Your task to perform on an android device: Search for "apple airpods pro" on costco.com, select the first entry, and add it to the cart. Image 0: 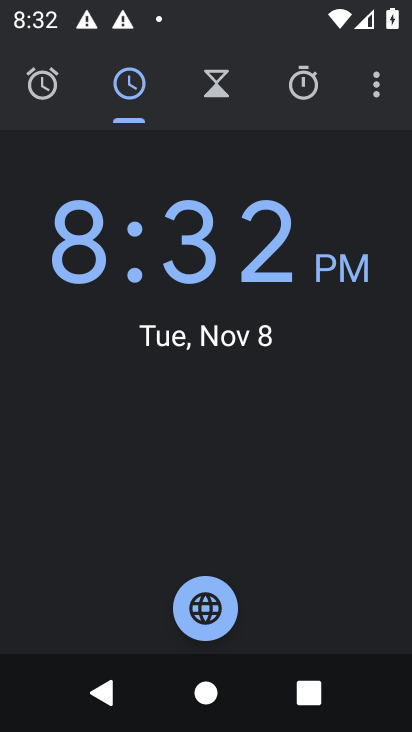
Step 0: press home button
Your task to perform on an android device: Search for "apple airpods pro" on costco.com, select the first entry, and add it to the cart. Image 1: 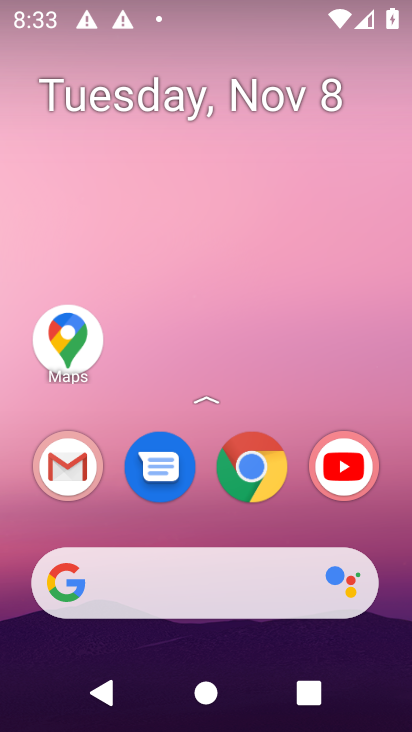
Step 1: click (147, 596)
Your task to perform on an android device: Search for "apple airpods pro" on costco.com, select the first entry, and add it to the cart. Image 2: 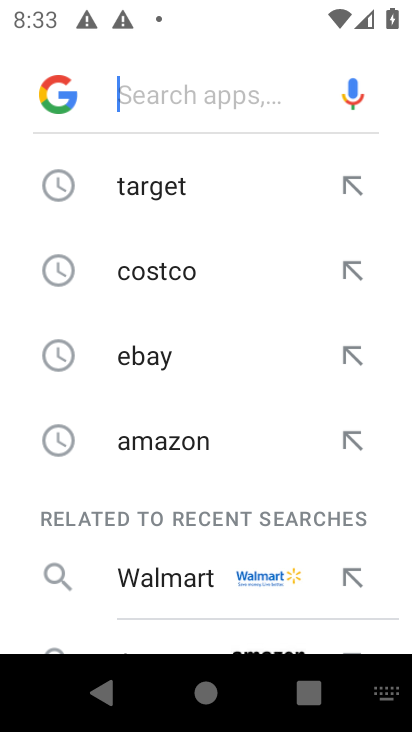
Step 2: click (264, 282)
Your task to perform on an android device: Search for "apple airpods pro" on costco.com, select the first entry, and add it to the cart. Image 3: 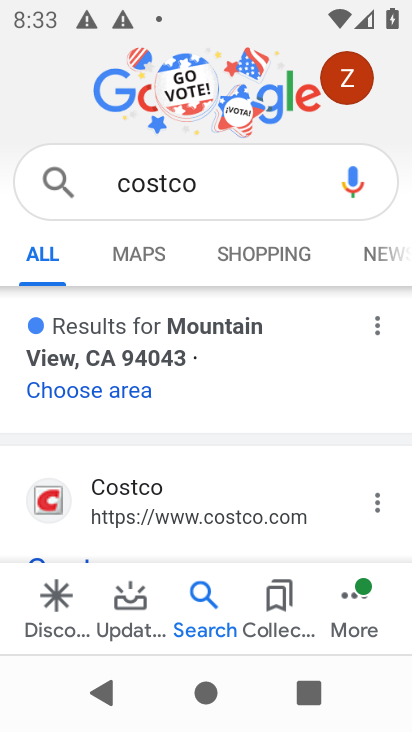
Step 3: click (131, 511)
Your task to perform on an android device: Search for "apple airpods pro" on costco.com, select the first entry, and add it to the cart. Image 4: 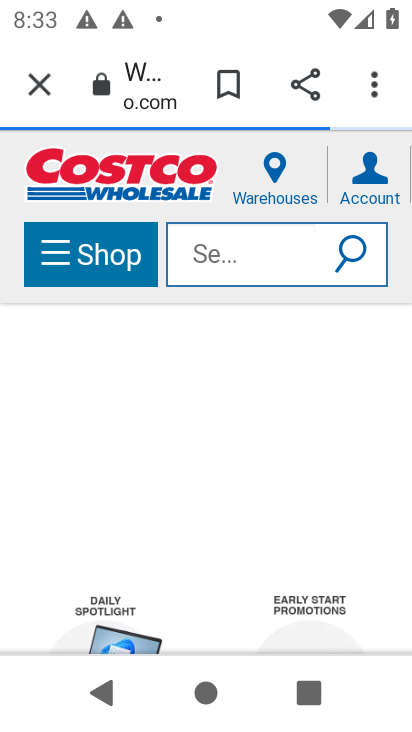
Step 4: click (250, 264)
Your task to perform on an android device: Search for "apple airpods pro" on costco.com, select the first entry, and add it to the cart. Image 5: 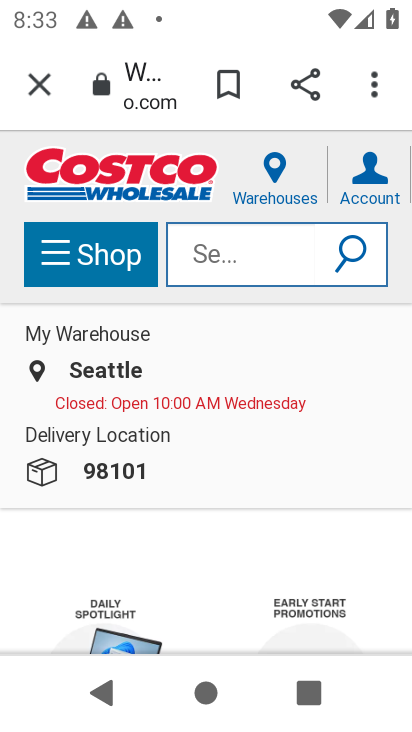
Step 5: type "apple airpod"
Your task to perform on an android device: Search for "apple airpods pro" on costco.com, select the first entry, and add it to the cart. Image 6: 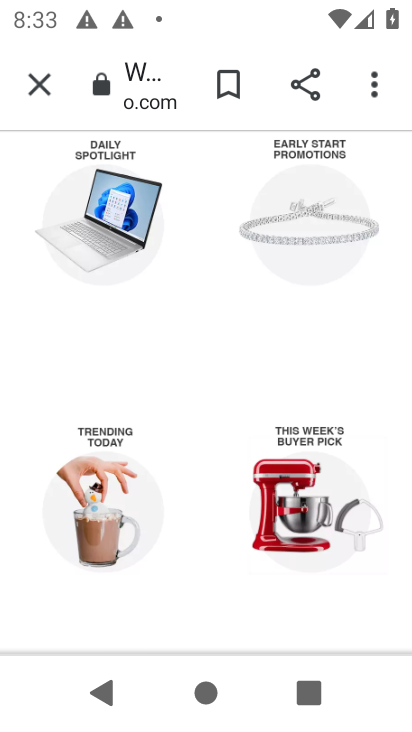
Step 6: task complete